Your task to perform on an android device: turn pop-ups on in chrome Image 0: 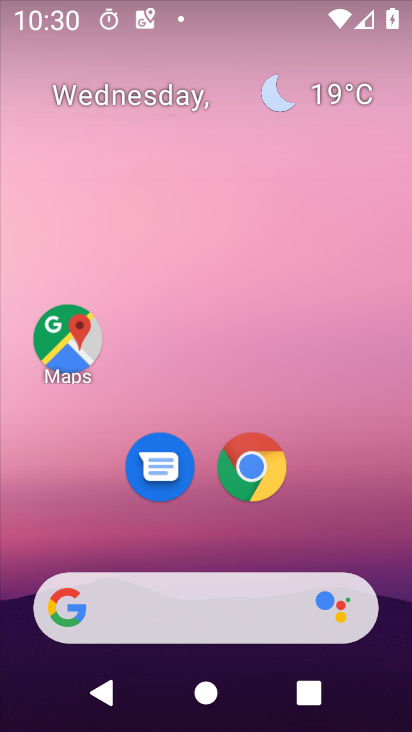
Step 0: click (252, 435)
Your task to perform on an android device: turn pop-ups on in chrome Image 1: 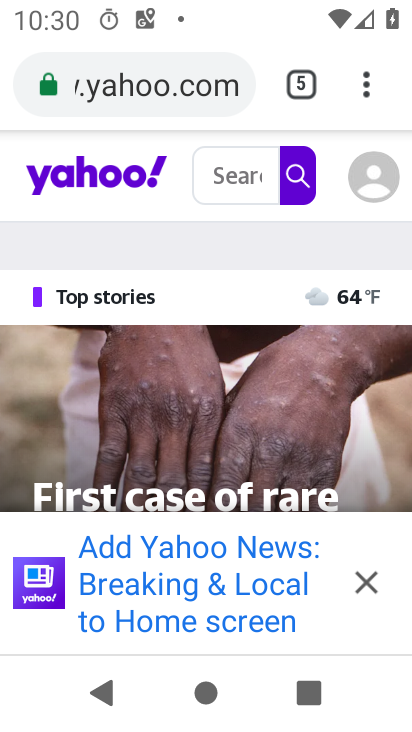
Step 1: click (369, 80)
Your task to perform on an android device: turn pop-ups on in chrome Image 2: 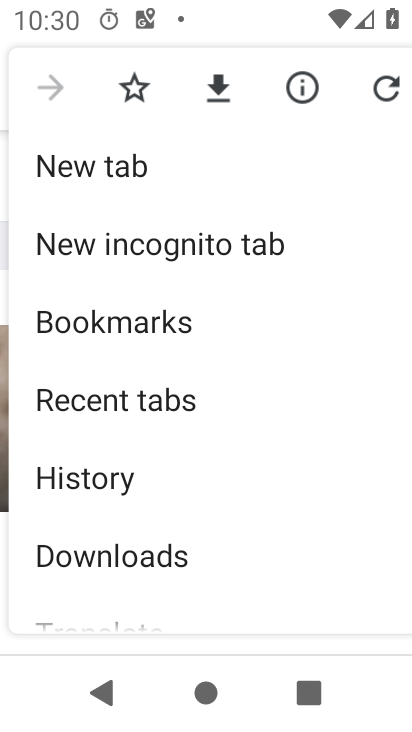
Step 2: drag from (234, 544) to (186, 45)
Your task to perform on an android device: turn pop-ups on in chrome Image 3: 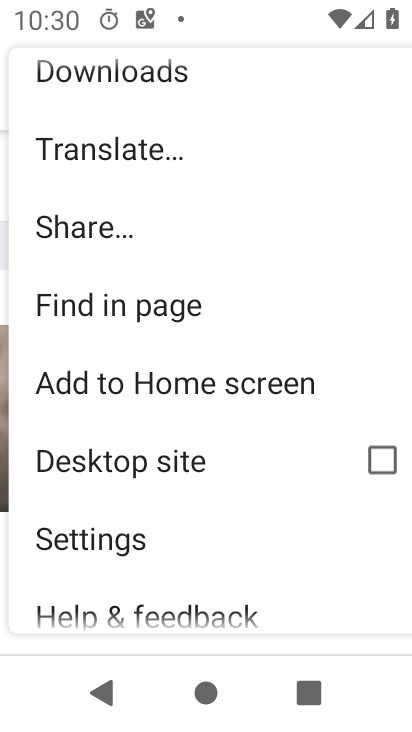
Step 3: click (134, 543)
Your task to perform on an android device: turn pop-ups on in chrome Image 4: 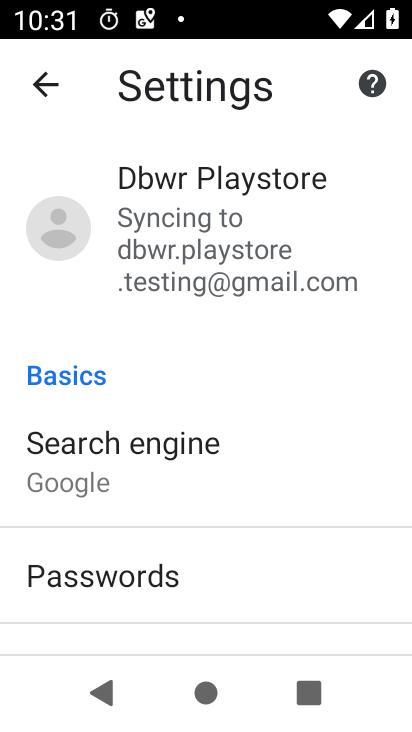
Step 4: drag from (251, 543) to (211, 194)
Your task to perform on an android device: turn pop-ups on in chrome Image 5: 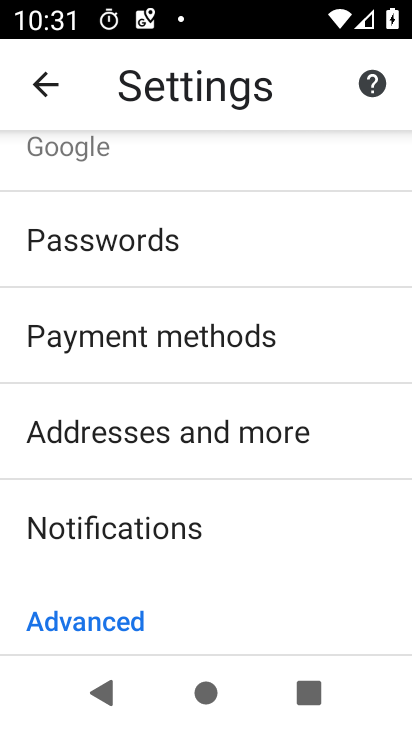
Step 5: drag from (193, 581) to (198, 197)
Your task to perform on an android device: turn pop-ups on in chrome Image 6: 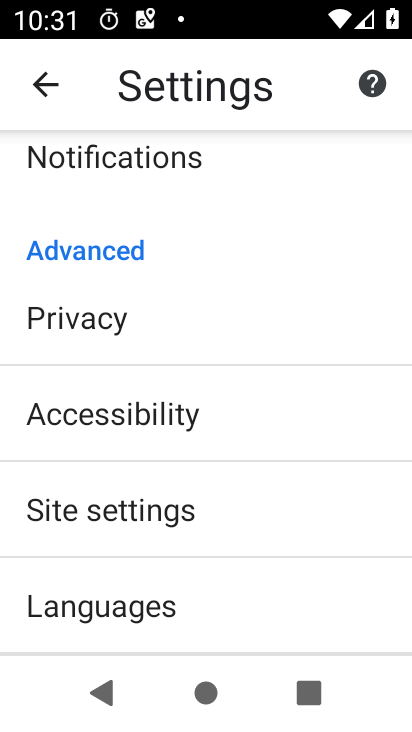
Step 6: drag from (181, 601) to (171, 464)
Your task to perform on an android device: turn pop-ups on in chrome Image 7: 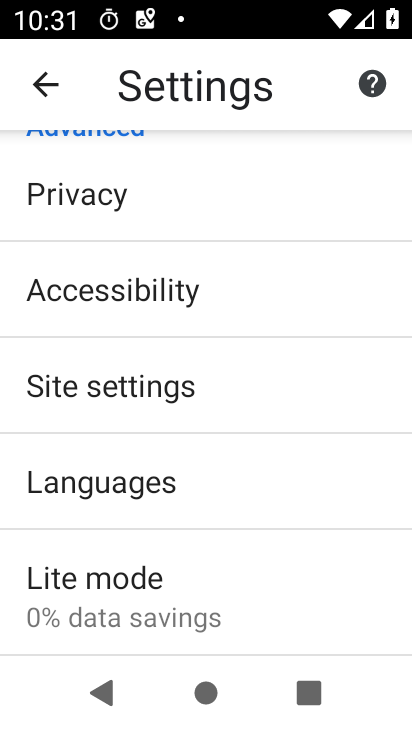
Step 7: click (141, 396)
Your task to perform on an android device: turn pop-ups on in chrome Image 8: 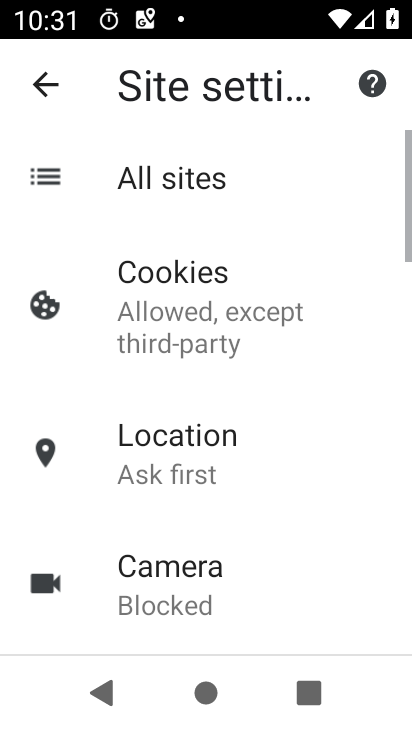
Step 8: drag from (219, 574) to (211, 113)
Your task to perform on an android device: turn pop-ups on in chrome Image 9: 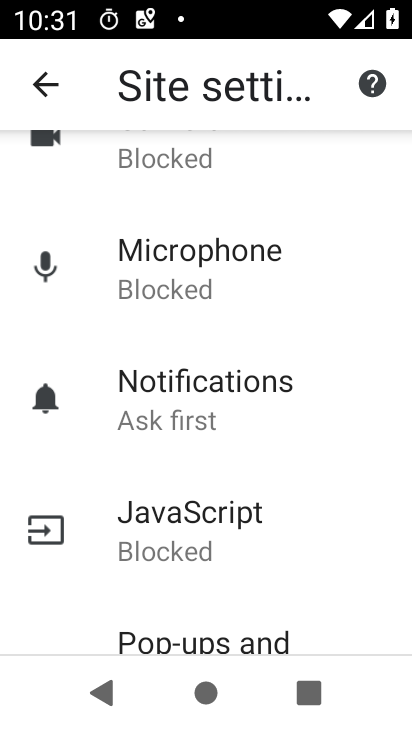
Step 9: drag from (235, 549) to (215, 251)
Your task to perform on an android device: turn pop-ups on in chrome Image 10: 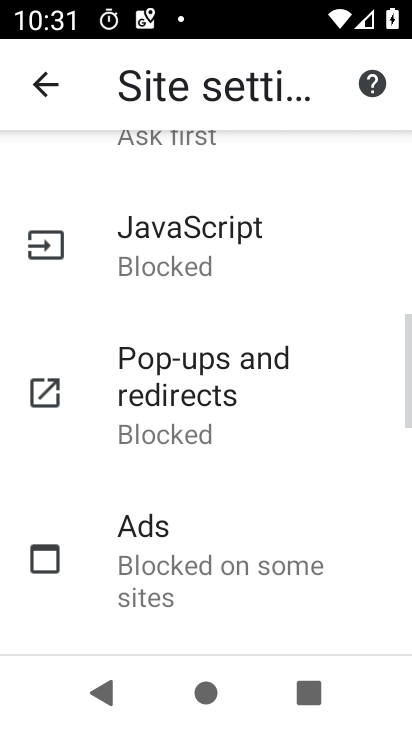
Step 10: click (217, 394)
Your task to perform on an android device: turn pop-ups on in chrome Image 11: 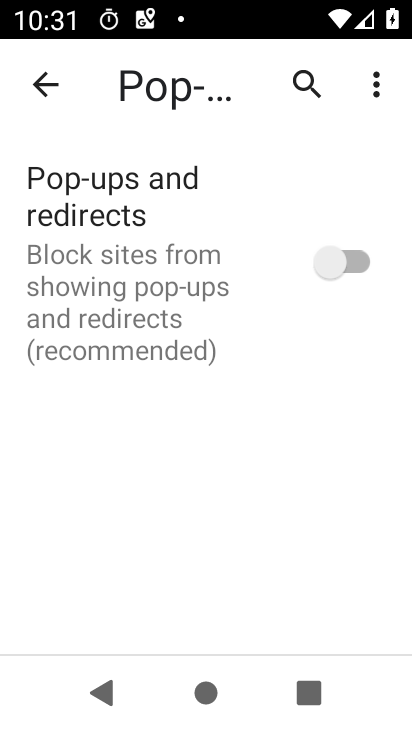
Step 11: click (344, 265)
Your task to perform on an android device: turn pop-ups on in chrome Image 12: 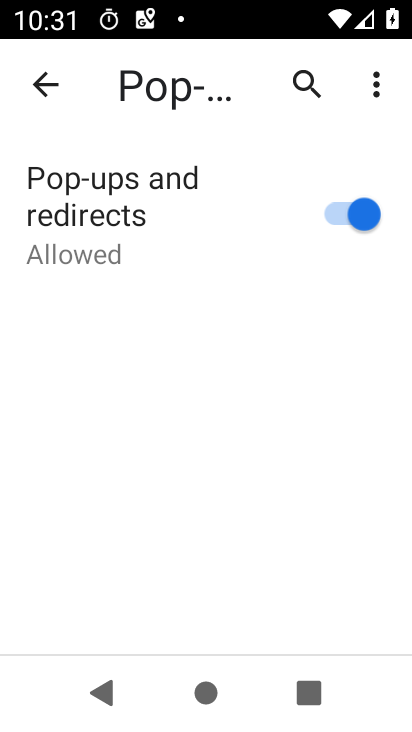
Step 12: task complete